Your task to perform on an android device: Add lenovo thinkpad to the cart on newegg Image 0: 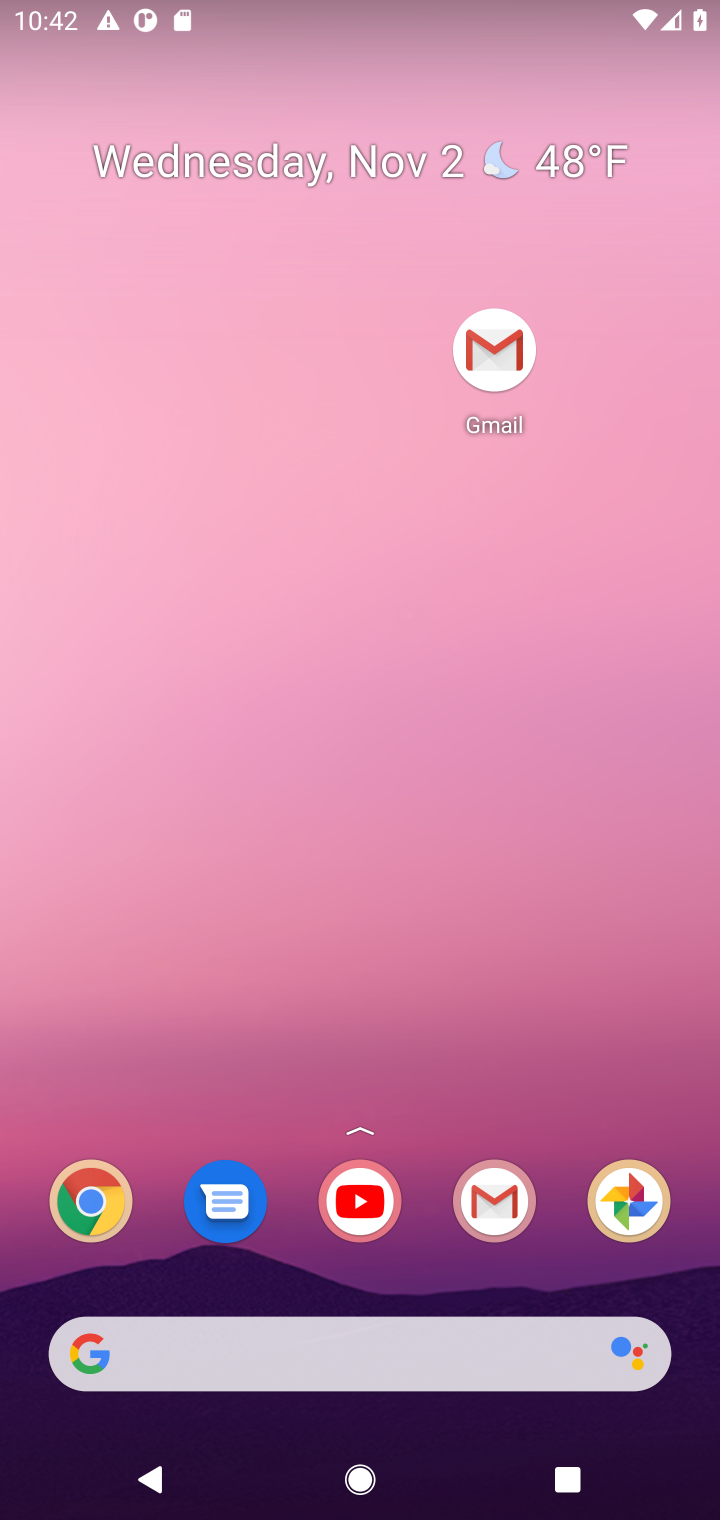
Step 0: drag from (423, 1079) to (279, 17)
Your task to perform on an android device: Add lenovo thinkpad to the cart on newegg Image 1: 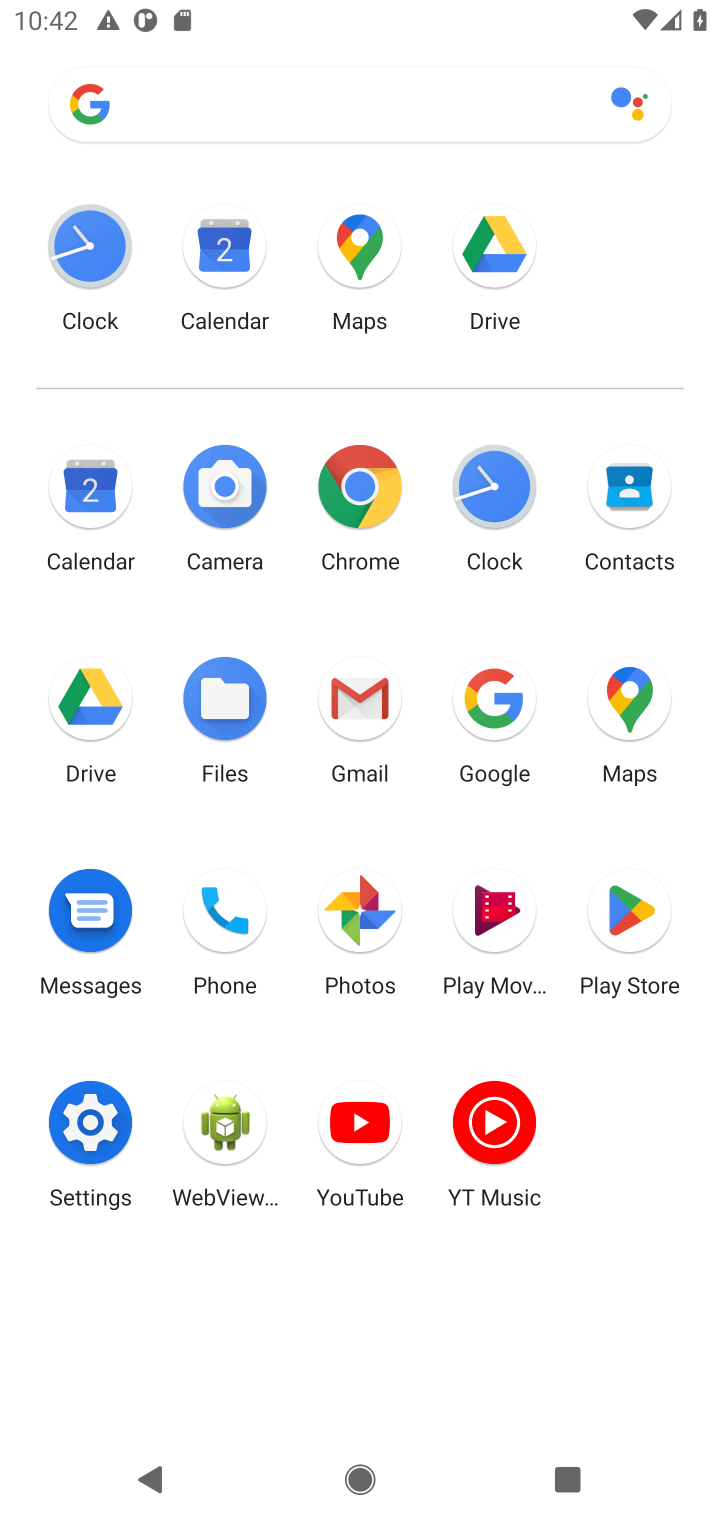
Step 1: click (345, 480)
Your task to perform on an android device: Add lenovo thinkpad to the cart on newegg Image 2: 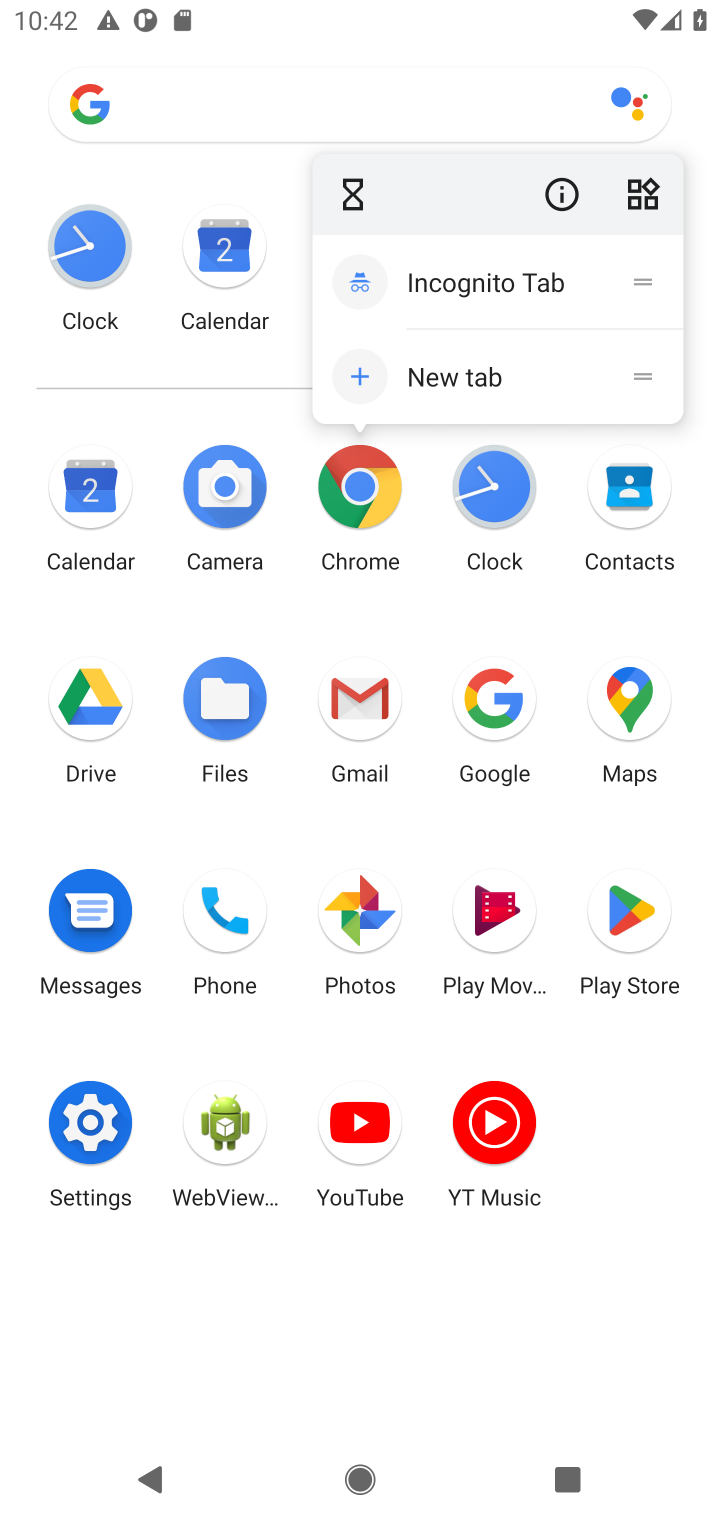
Step 2: click (365, 494)
Your task to perform on an android device: Add lenovo thinkpad to the cart on newegg Image 3: 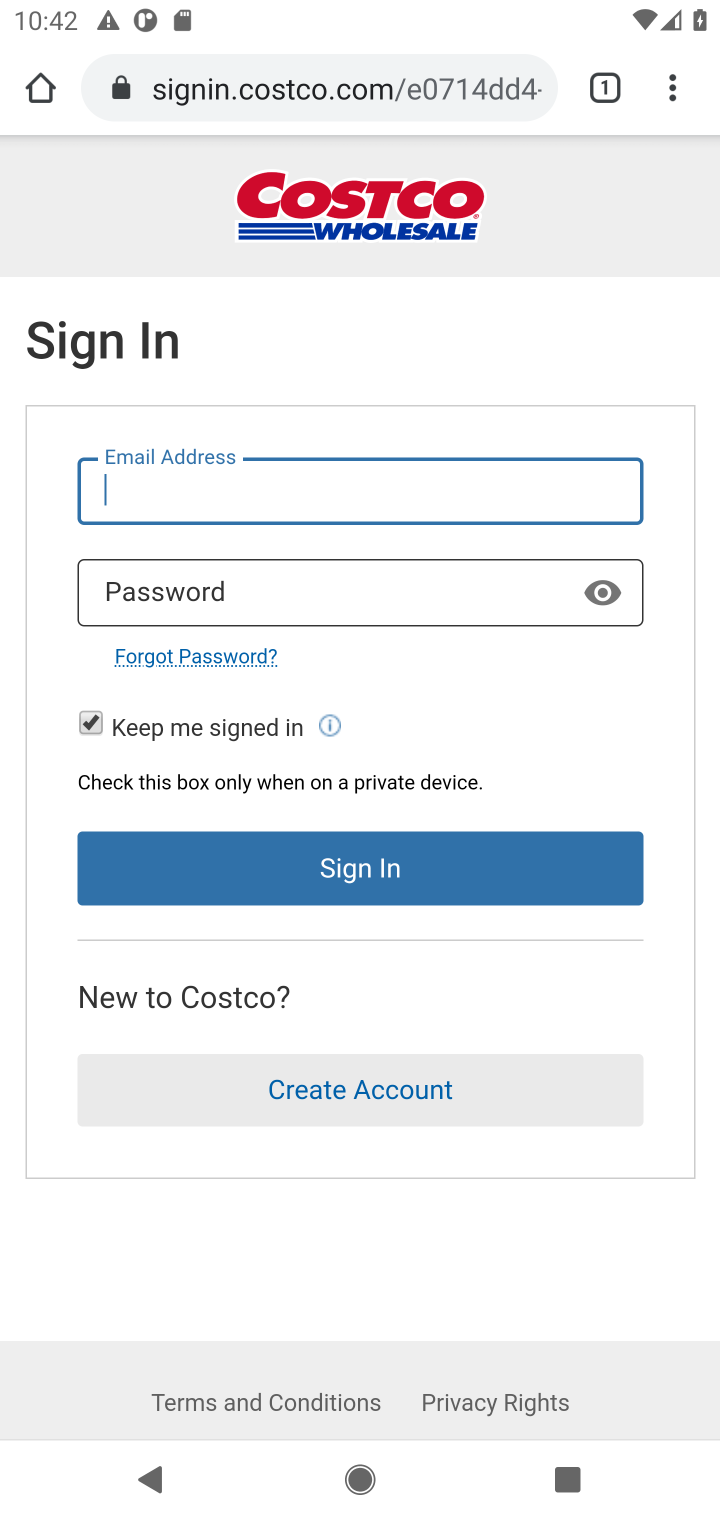
Step 3: click (314, 75)
Your task to perform on an android device: Add lenovo thinkpad to the cart on newegg Image 4: 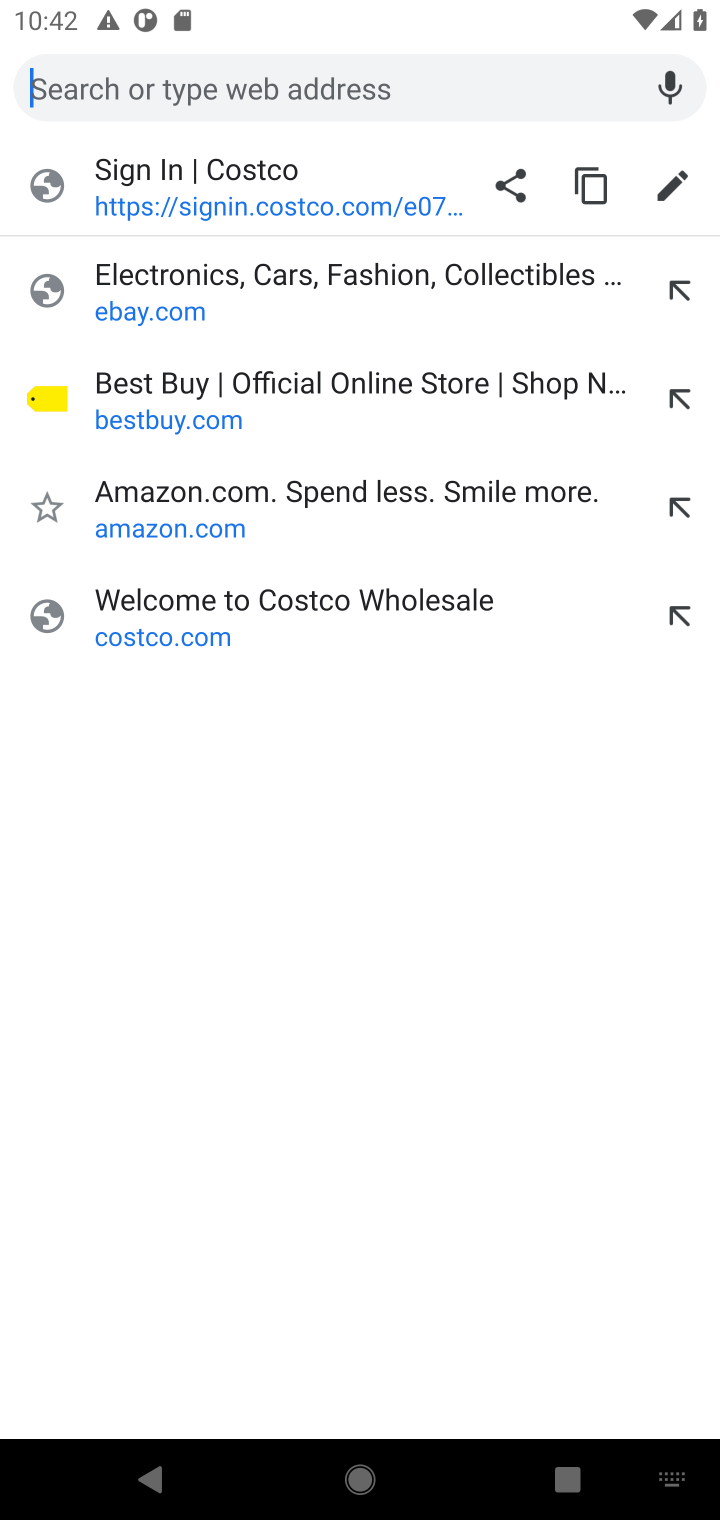
Step 4: type "newegg.com"
Your task to perform on an android device: Add lenovo thinkpad to the cart on newegg Image 5: 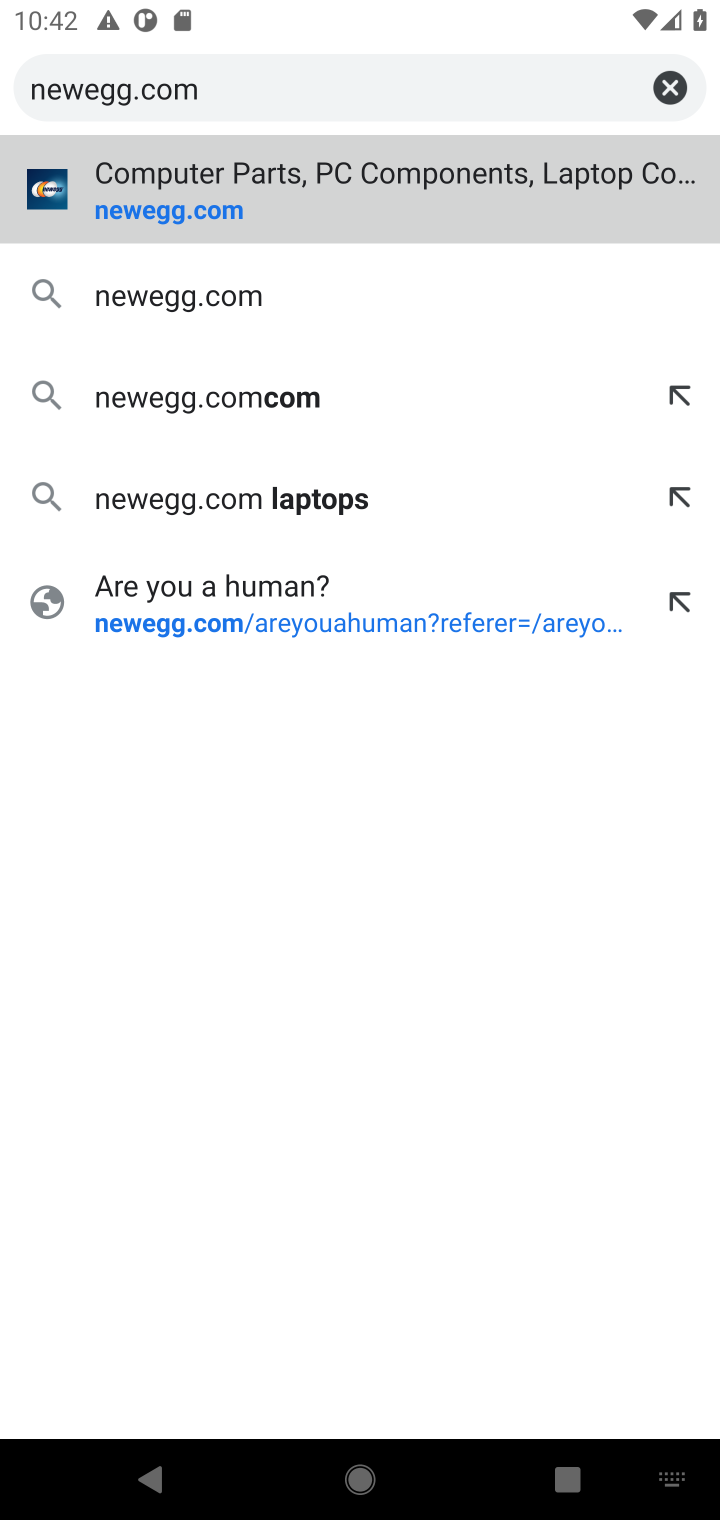
Step 5: press enter
Your task to perform on an android device: Add lenovo thinkpad to the cart on newegg Image 6: 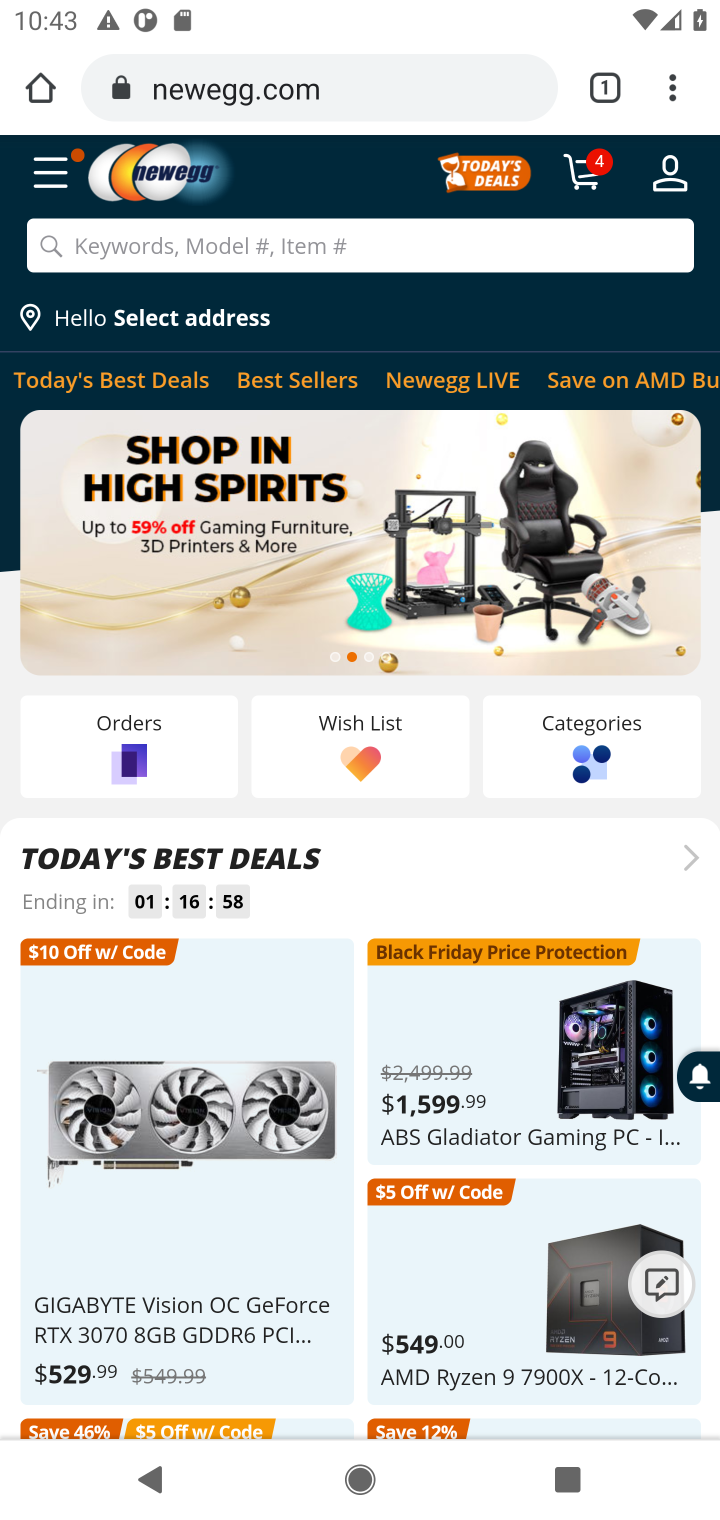
Step 6: click (341, 246)
Your task to perform on an android device: Add lenovo thinkpad to the cart on newegg Image 7: 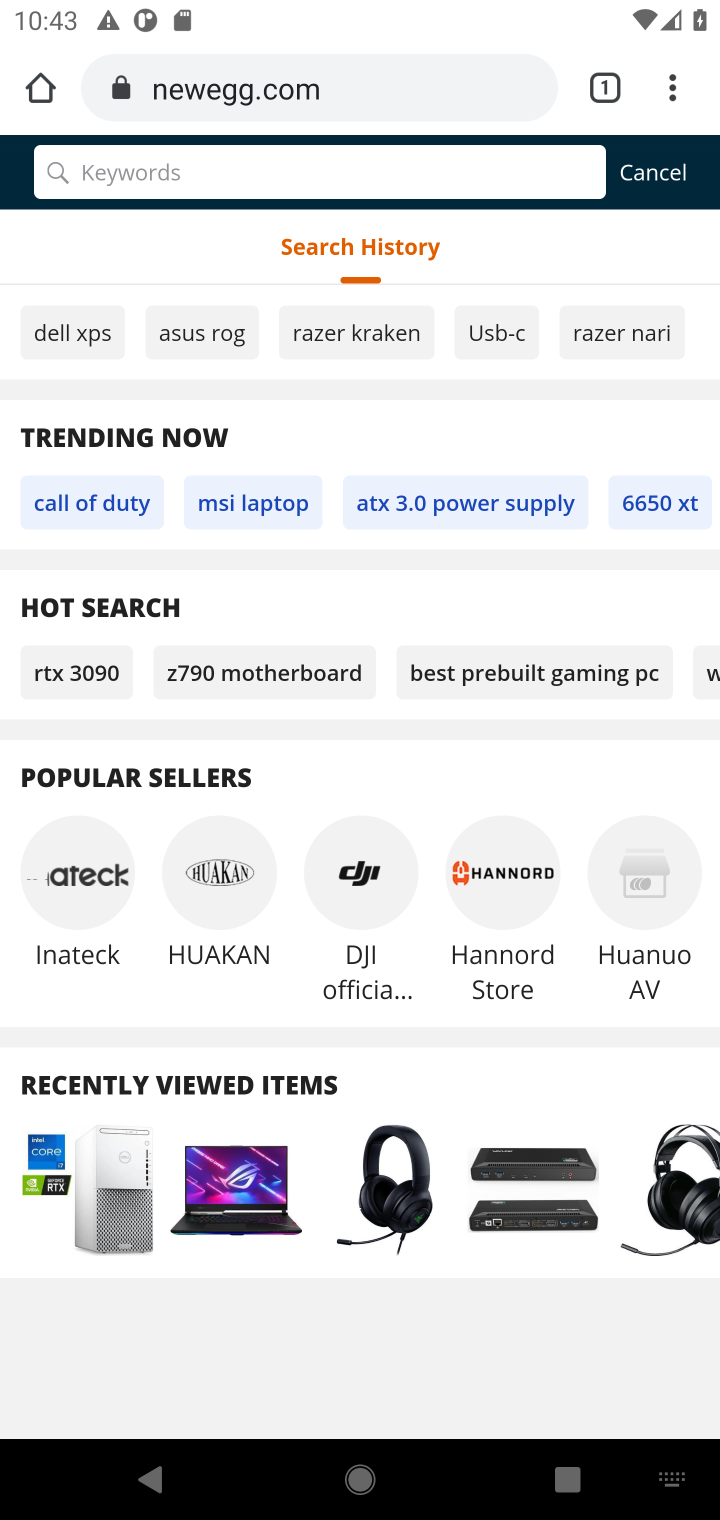
Step 7: type "lenovo thinkpad"
Your task to perform on an android device: Add lenovo thinkpad to the cart on newegg Image 8: 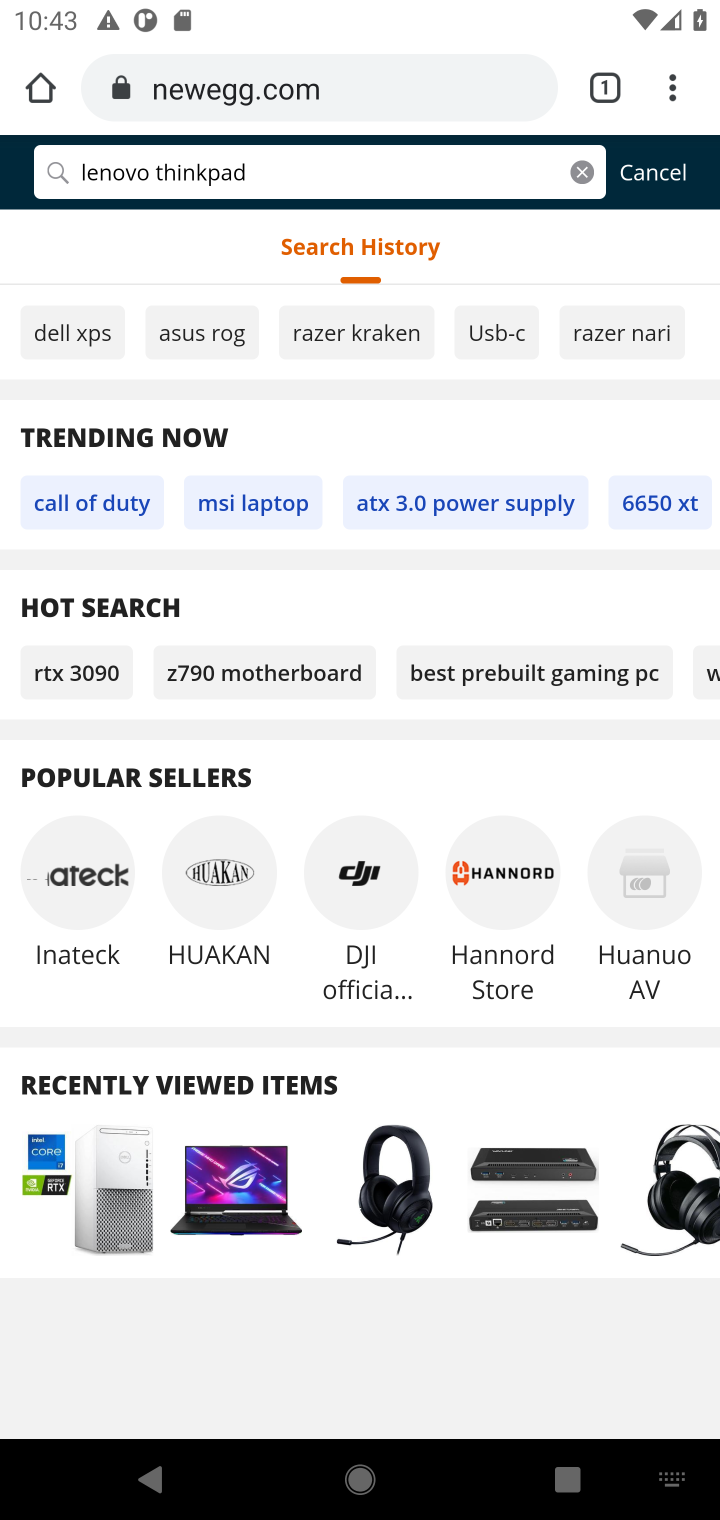
Step 8: press enter
Your task to perform on an android device: Add lenovo thinkpad to the cart on newegg Image 9: 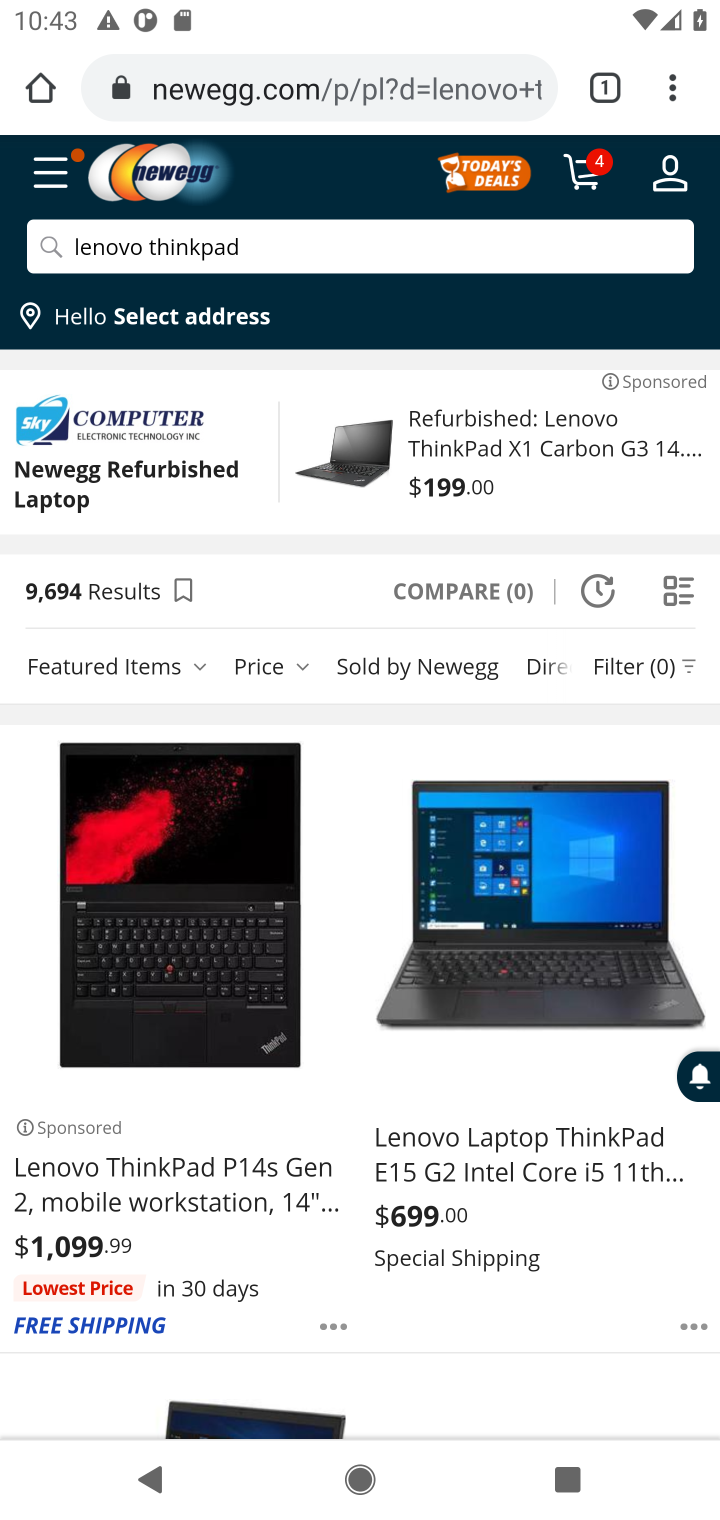
Step 9: click (576, 1095)
Your task to perform on an android device: Add lenovo thinkpad to the cart on newegg Image 10: 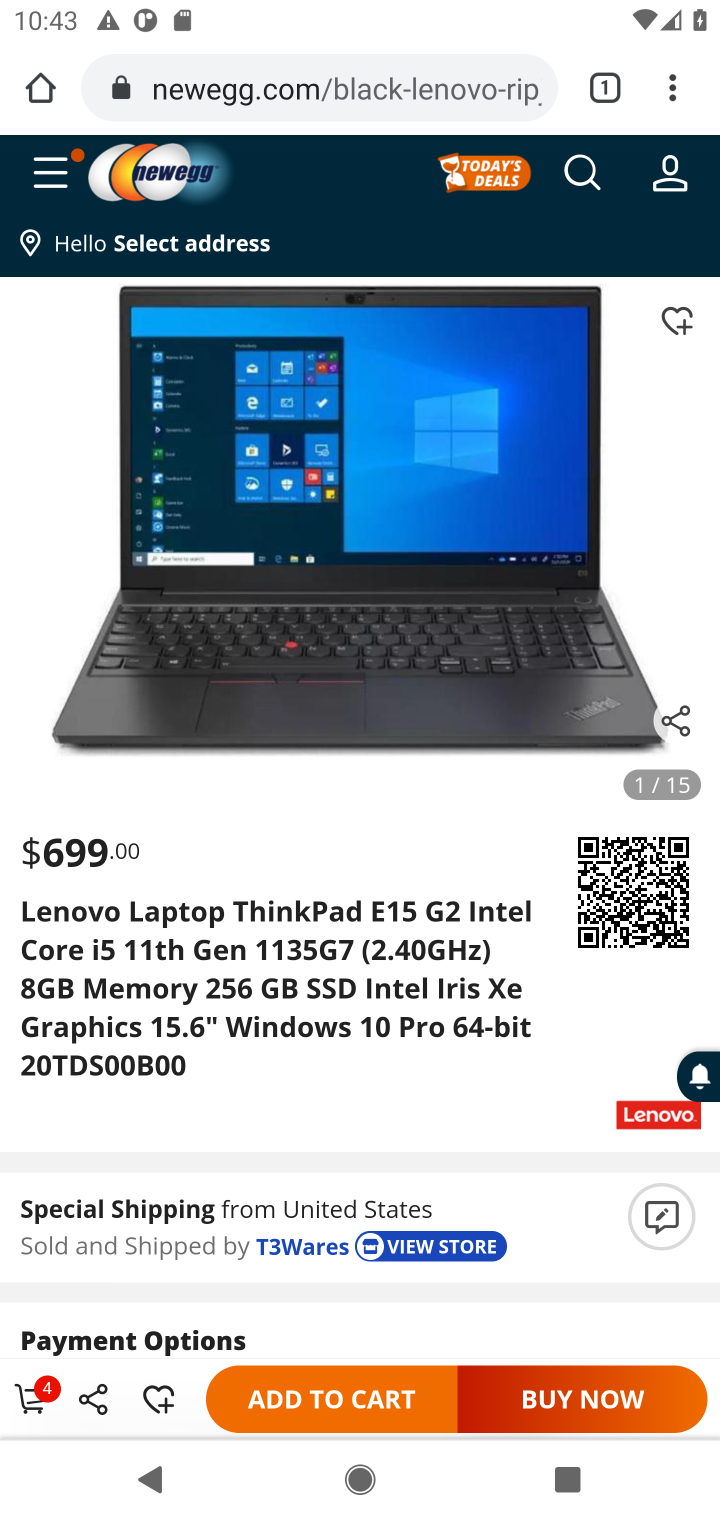
Step 10: click (261, 1388)
Your task to perform on an android device: Add lenovo thinkpad to the cart on newegg Image 11: 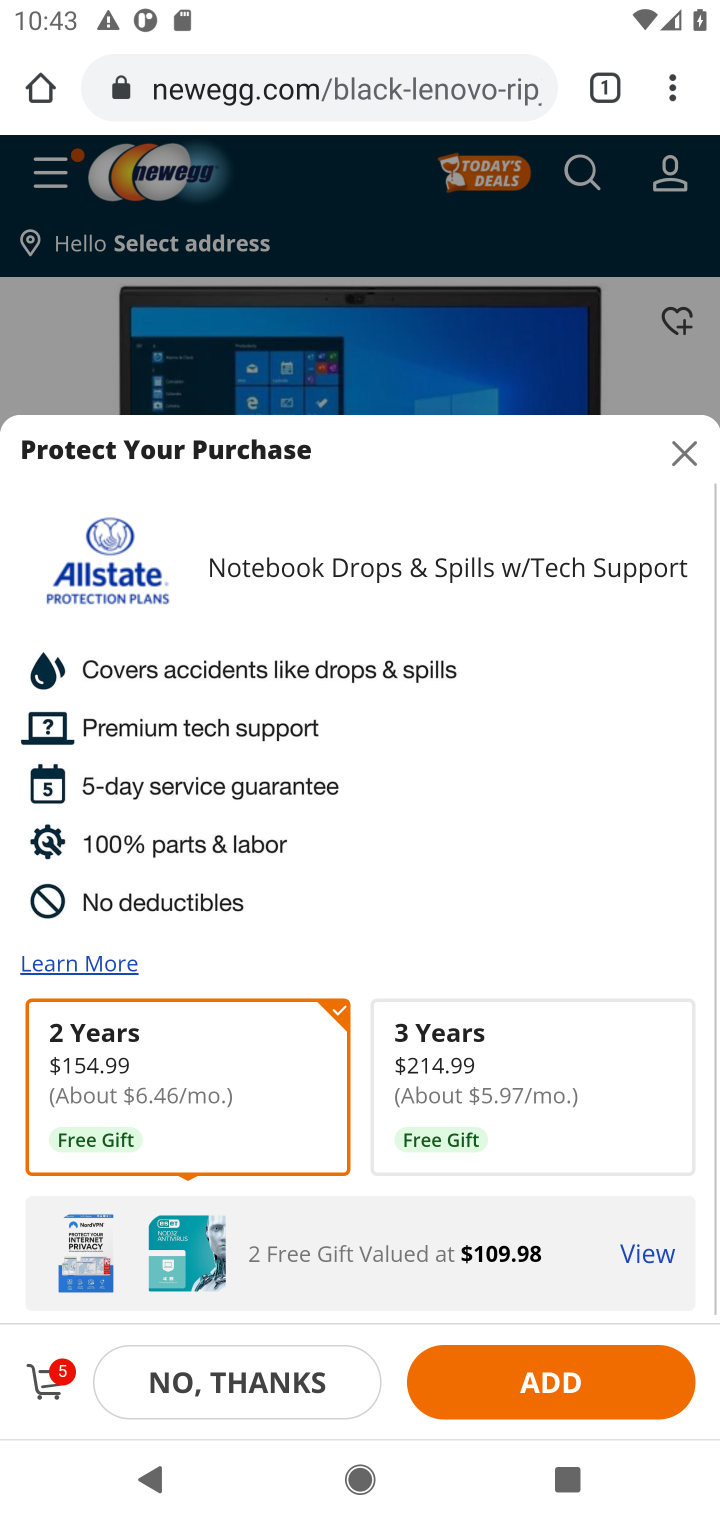
Step 11: press home button
Your task to perform on an android device: Add lenovo thinkpad to the cart on newegg Image 12: 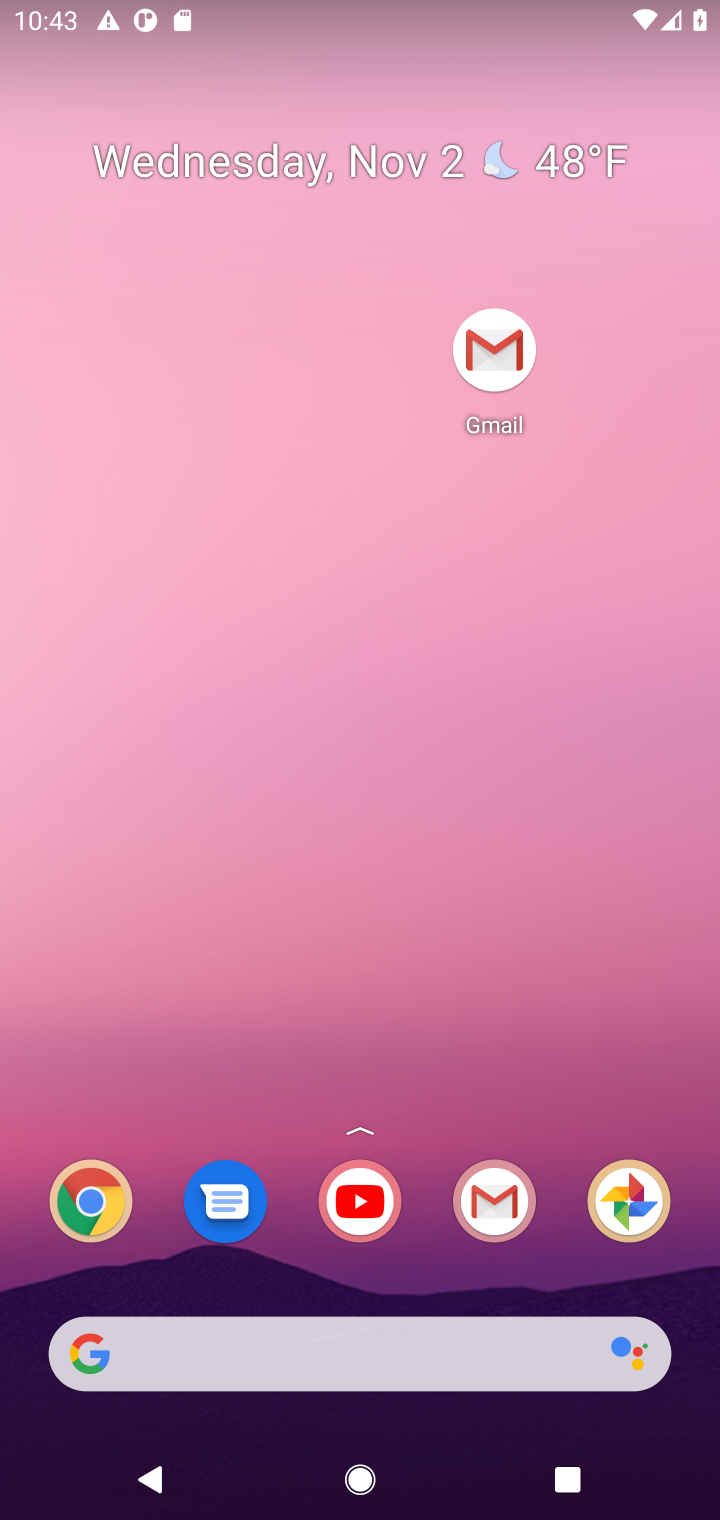
Step 12: drag from (420, 1283) to (336, 386)
Your task to perform on an android device: Add lenovo thinkpad to the cart on newegg Image 13: 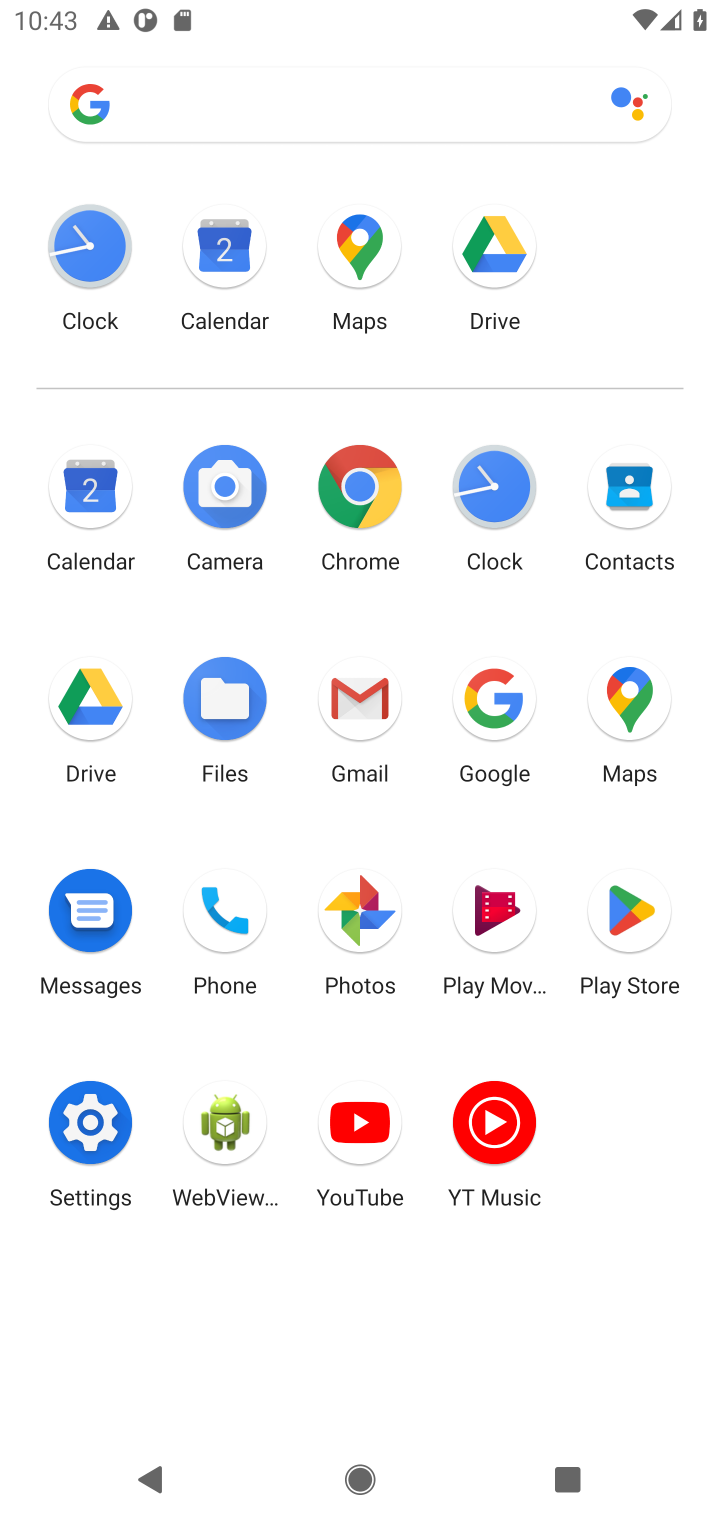
Step 13: click (366, 481)
Your task to perform on an android device: Add lenovo thinkpad to the cart on newegg Image 14: 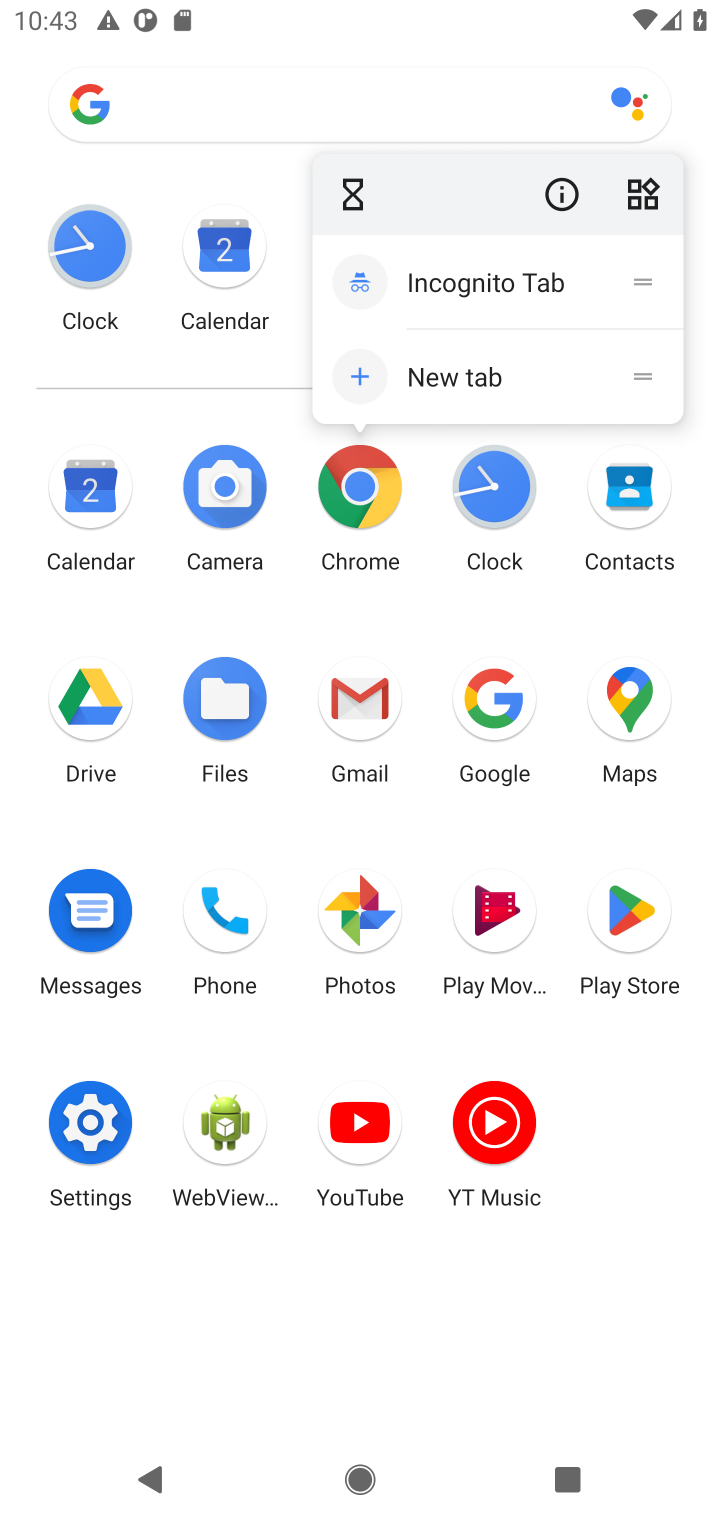
Step 14: click (368, 490)
Your task to perform on an android device: Add lenovo thinkpad to the cart on newegg Image 15: 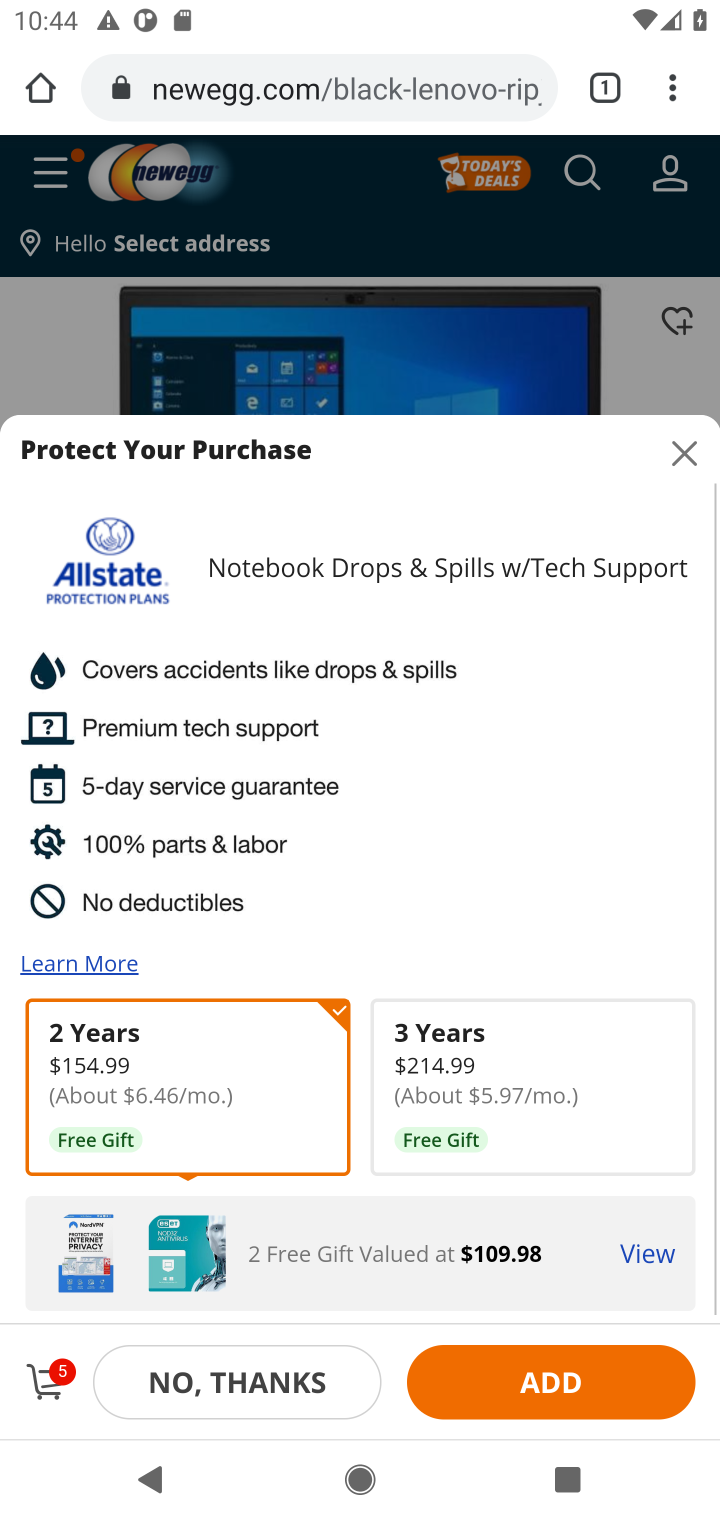
Step 15: task complete